Your task to perform on an android device: turn on wifi Image 0: 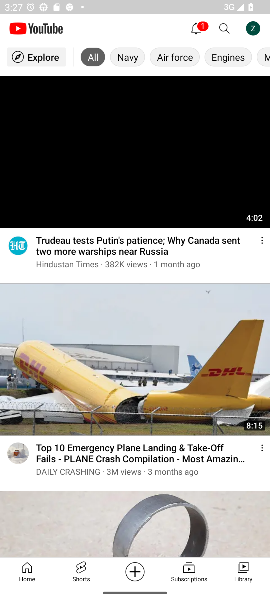
Step 0: press home button
Your task to perform on an android device: turn on wifi Image 1: 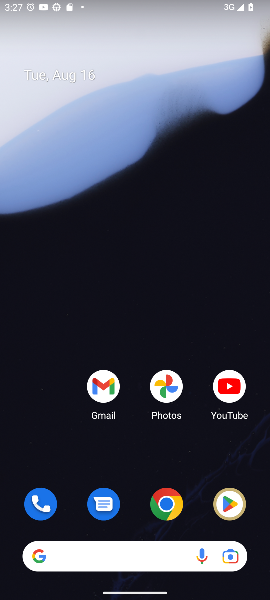
Step 1: drag from (139, 460) to (139, 108)
Your task to perform on an android device: turn on wifi Image 2: 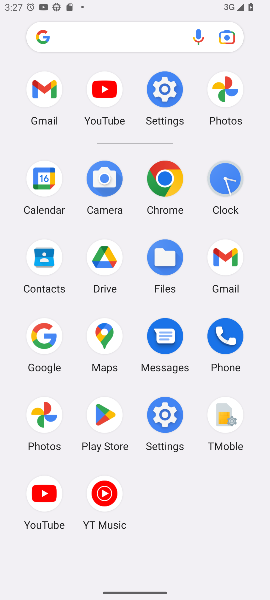
Step 2: click (161, 88)
Your task to perform on an android device: turn on wifi Image 3: 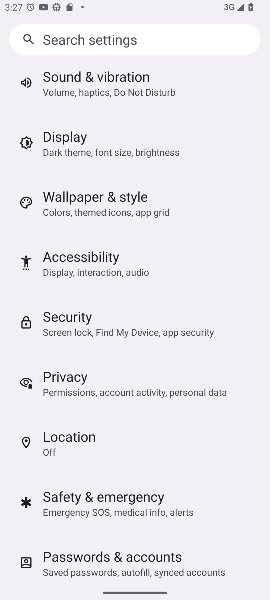
Step 3: drag from (184, 125) to (160, 390)
Your task to perform on an android device: turn on wifi Image 4: 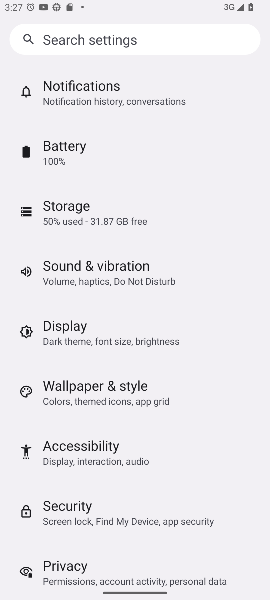
Step 4: drag from (125, 130) to (99, 360)
Your task to perform on an android device: turn on wifi Image 5: 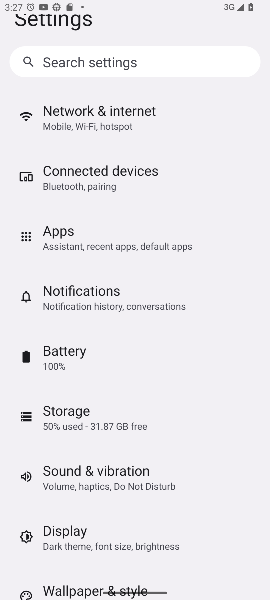
Step 5: click (94, 106)
Your task to perform on an android device: turn on wifi Image 6: 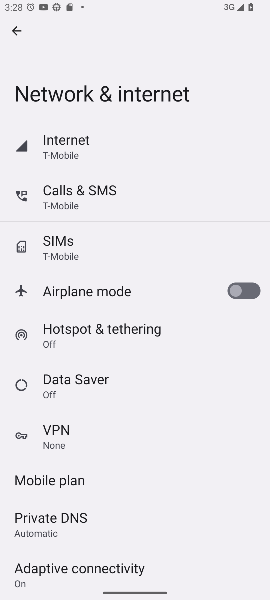
Step 6: click (61, 134)
Your task to perform on an android device: turn on wifi Image 7: 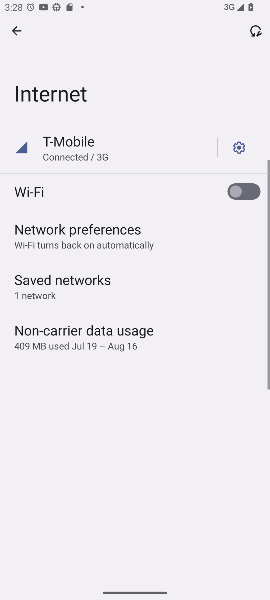
Step 7: click (231, 191)
Your task to perform on an android device: turn on wifi Image 8: 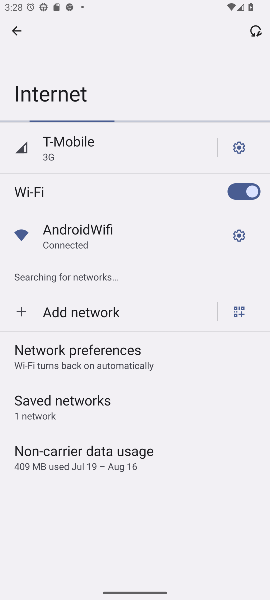
Step 8: task complete